Your task to perform on an android device: clear all cookies in the chrome app Image 0: 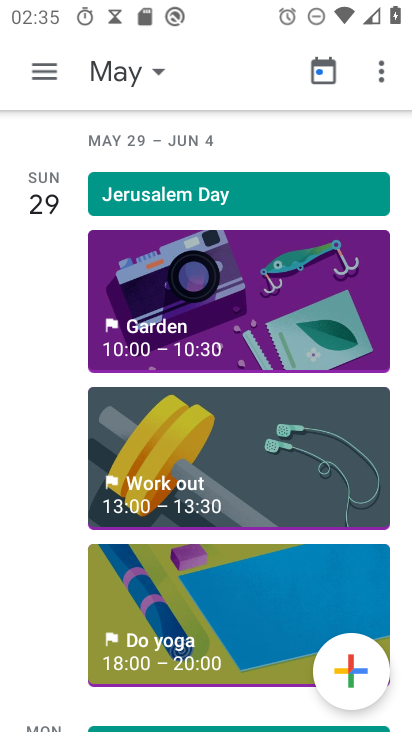
Step 0: press home button
Your task to perform on an android device: clear all cookies in the chrome app Image 1: 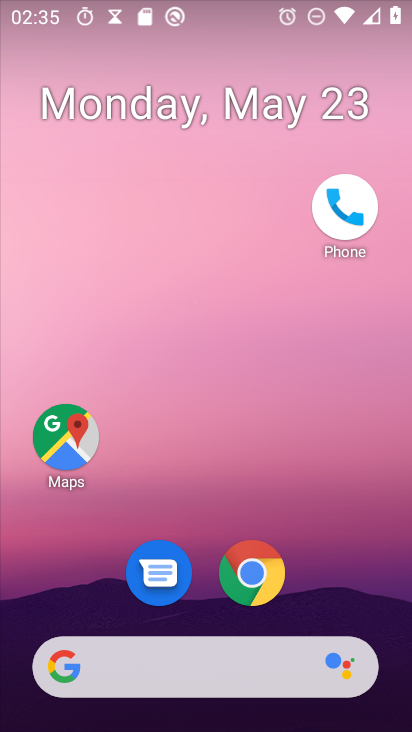
Step 1: click (254, 588)
Your task to perform on an android device: clear all cookies in the chrome app Image 2: 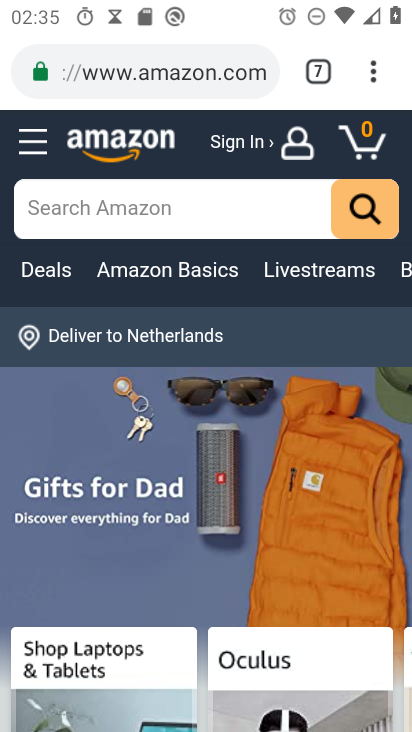
Step 2: drag from (371, 73) to (224, 587)
Your task to perform on an android device: clear all cookies in the chrome app Image 3: 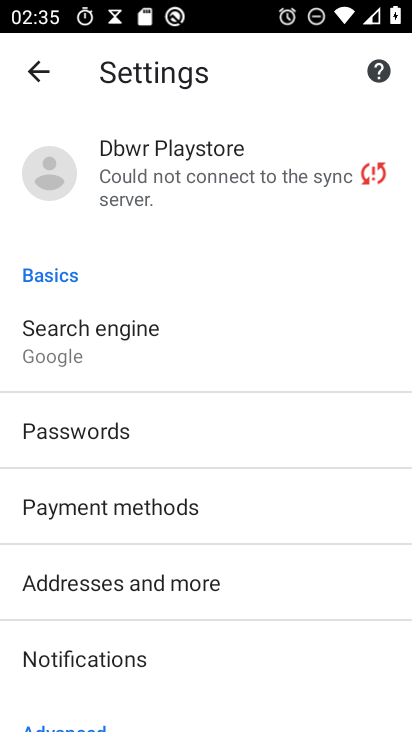
Step 3: drag from (176, 681) to (303, 234)
Your task to perform on an android device: clear all cookies in the chrome app Image 4: 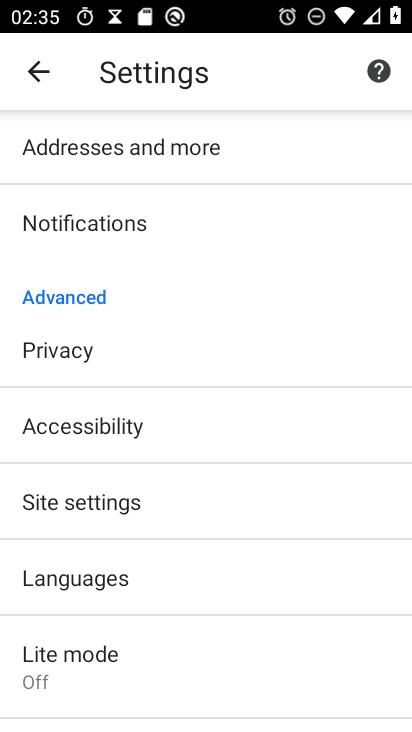
Step 4: click (86, 353)
Your task to perform on an android device: clear all cookies in the chrome app Image 5: 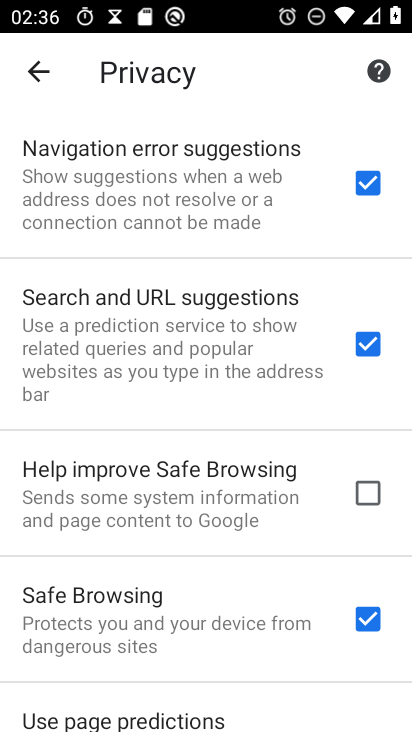
Step 5: drag from (195, 575) to (320, 211)
Your task to perform on an android device: clear all cookies in the chrome app Image 6: 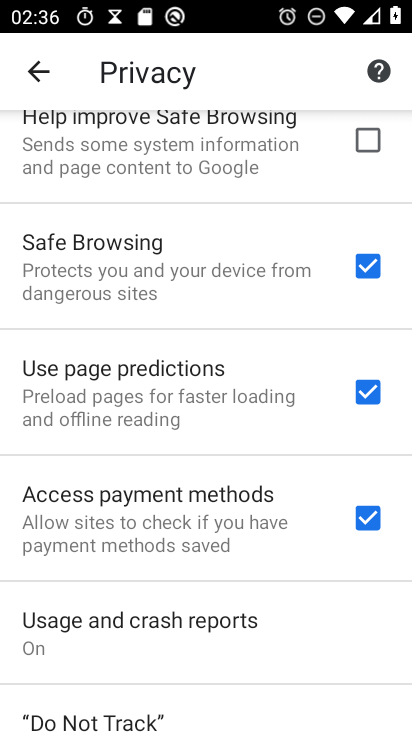
Step 6: drag from (218, 683) to (322, 340)
Your task to perform on an android device: clear all cookies in the chrome app Image 7: 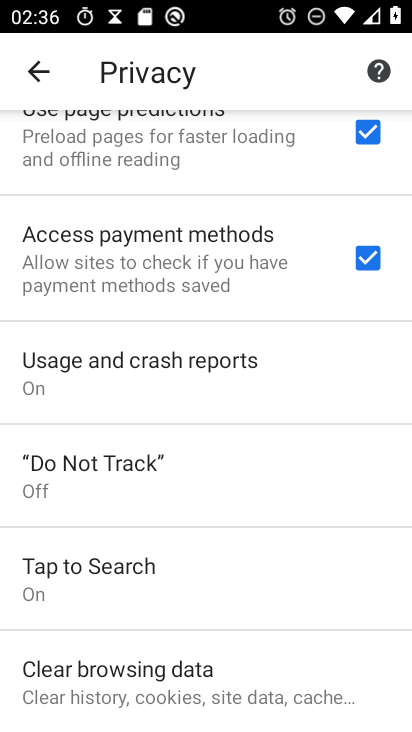
Step 7: click (215, 676)
Your task to perform on an android device: clear all cookies in the chrome app Image 8: 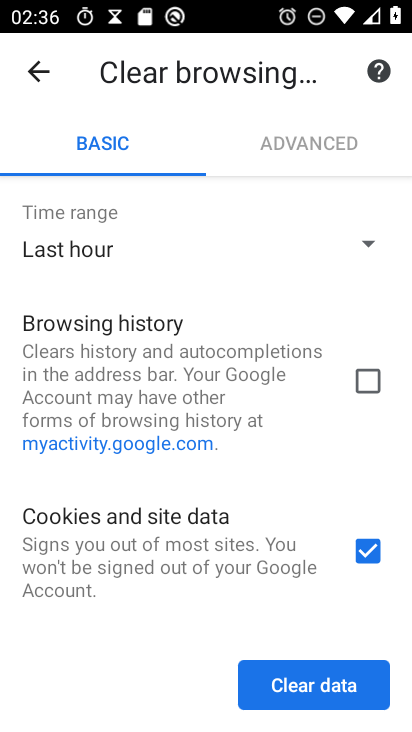
Step 8: click (316, 688)
Your task to perform on an android device: clear all cookies in the chrome app Image 9: 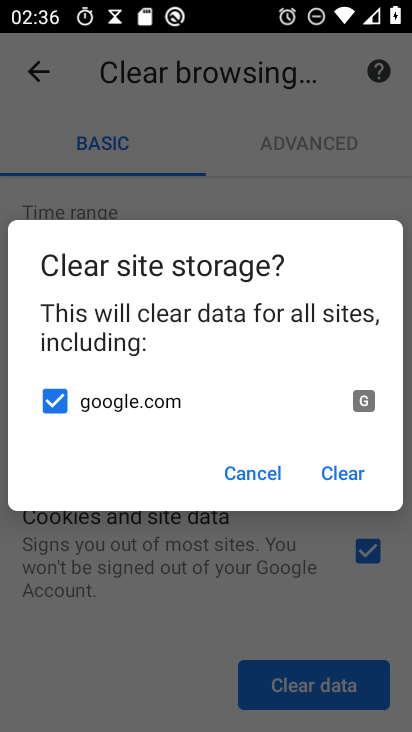
Step 9: click (343, 468)
Your task to perform on an android device: clear all cookies in the chrome app Image 10: 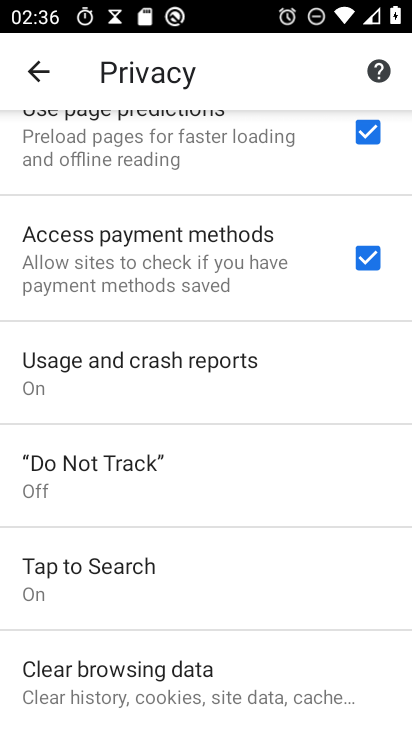
Step 10: task complete